Your task to perform on an android device: Open Yahoo.com Image 0: 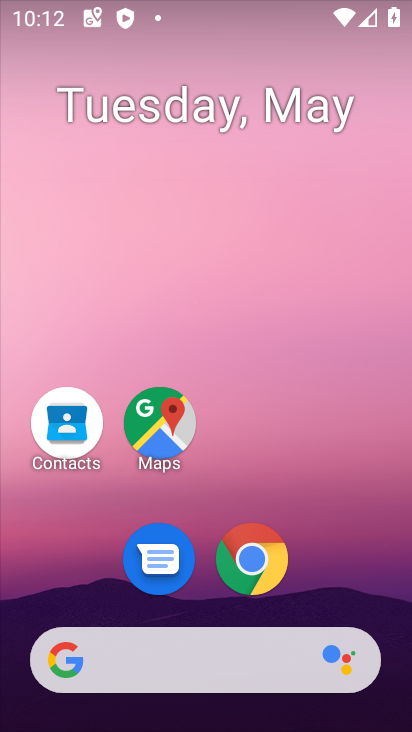
Step 0: click (225, 664)
Your task to perform on an android device: Open Yahoo.com Image 1: 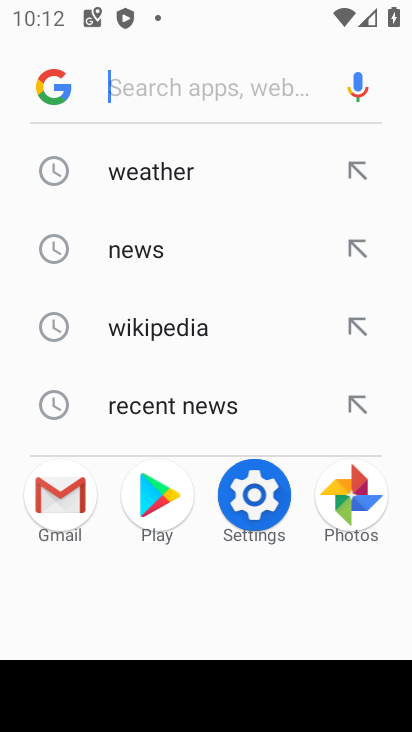
Step 1: type "yahoo.com"
Your task to perform on an android device: Open Yahoo.com Image 2: 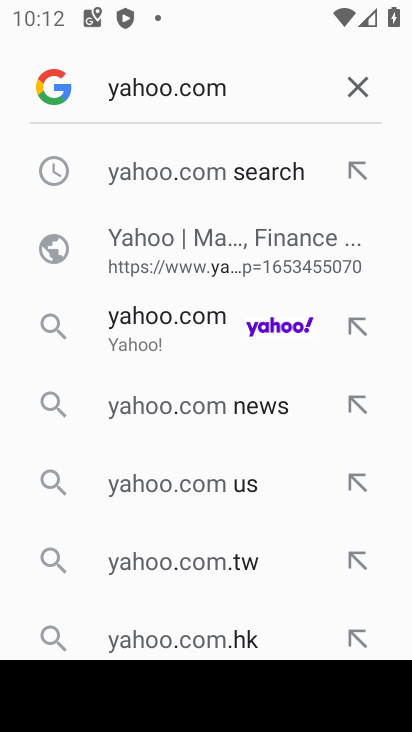
Step 2: click (163, 167)
Your task to perform on an android device: Open Yahoo.com Image 3: 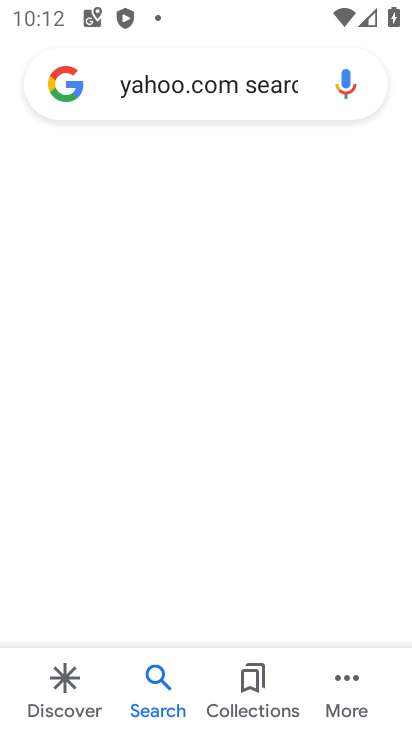
Step 3: task complete